Your task to perform on an android device: empty trash in the gmail app Image 0: 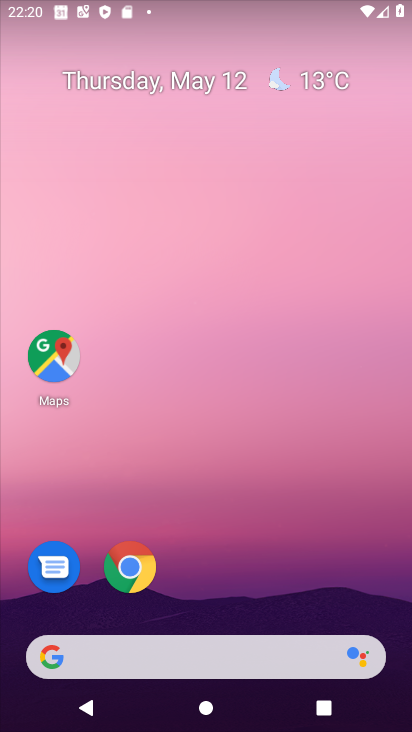
Step 0: drag from (214, 612) to (273, 0)
Your task to perform on an android device: empty trash in the gmail app Image 1: 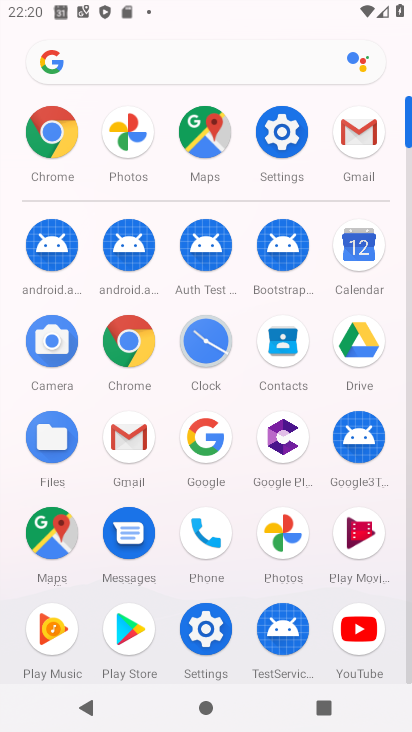
Step 1: click (125, 433)
Your task to perform on an android device: empty trash in the gmail app Image 2: 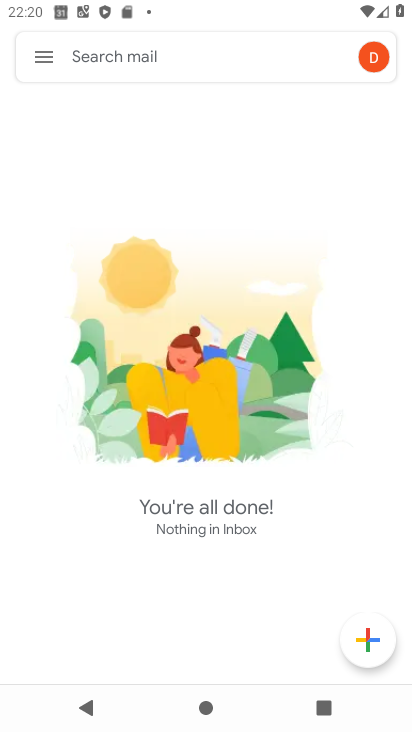
Step 2: click (50, 50)
Your task to perform on an android device: empty trash in the gmail app Image 3: 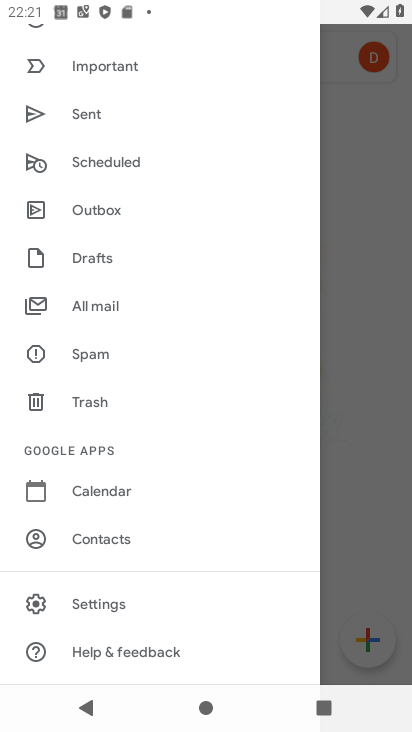
Step 3: click (86, 401)
Your task to perform on an android device: empty trash in the gmail app Image 4: 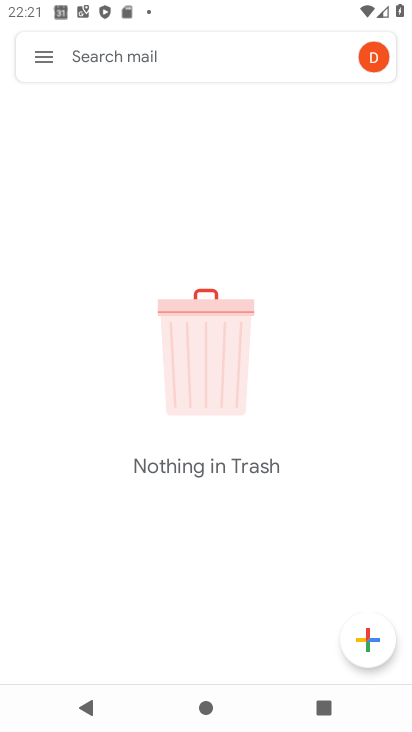
Step 4: task complete